Your task to perform on an android device: Open settings Image 0: 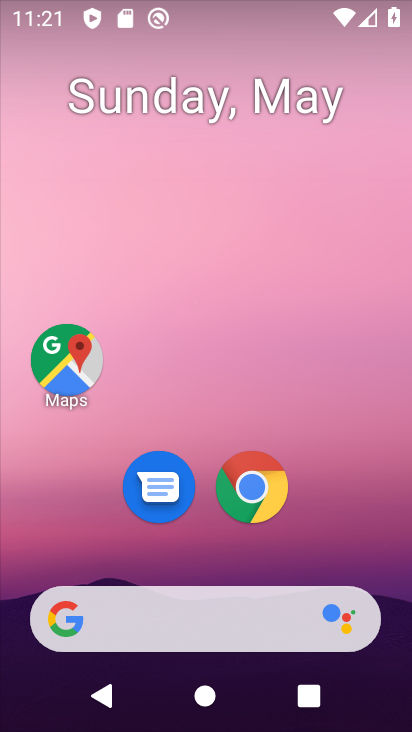
Step 0: drag from (342, 497) to (308, 94)
Your task to perform on an android device: Open settings Image 1: 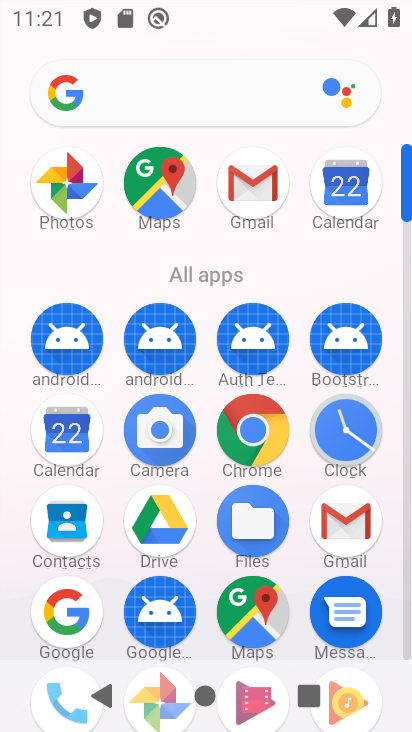
Step 1: drag from (387, 561) to (379, 300)
Your task to perform on an android device: Open settings Image 2: 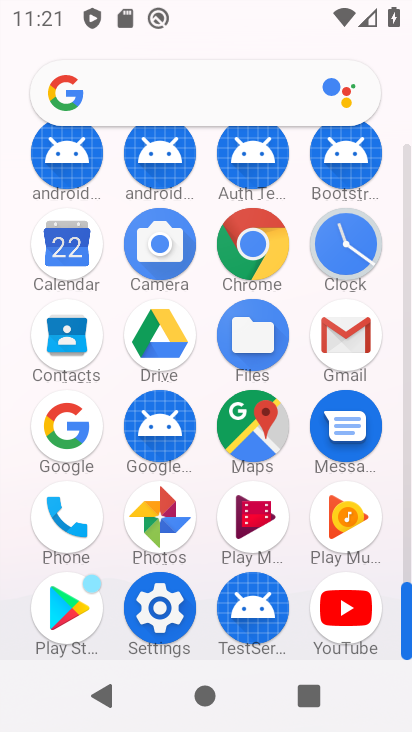
Step 2: click (174, 613)
Your task to perform on an android device: Open settings Image 3: 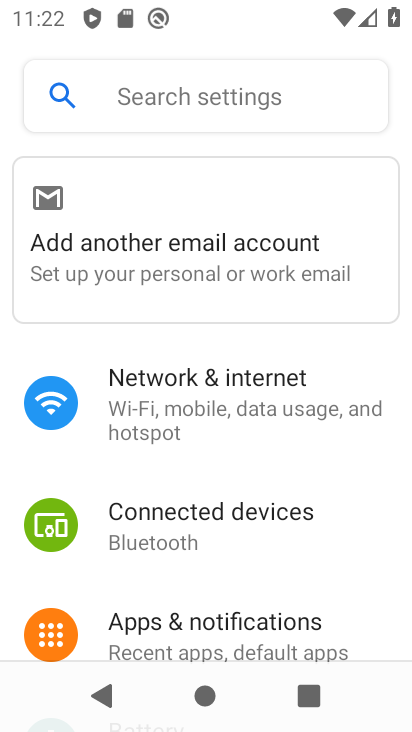
Step 3: task complete